Your task to perform on an android device: What's the weather going to be this weekend? Image 0: 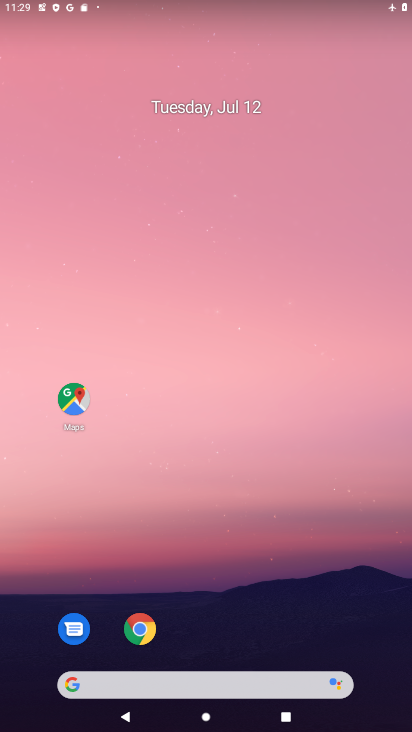
Step 0: drag from (212, 658) to (259, 303)
Your task to perform on an android device: What's the weather going to be this weekend? Image 1: 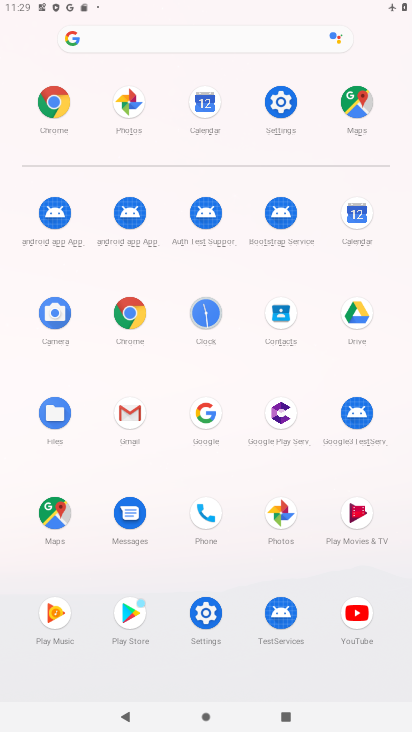
Step 1: click (127, 307)
Your task to perform on an android device: What's the weather going to be this weekend? Image 2: 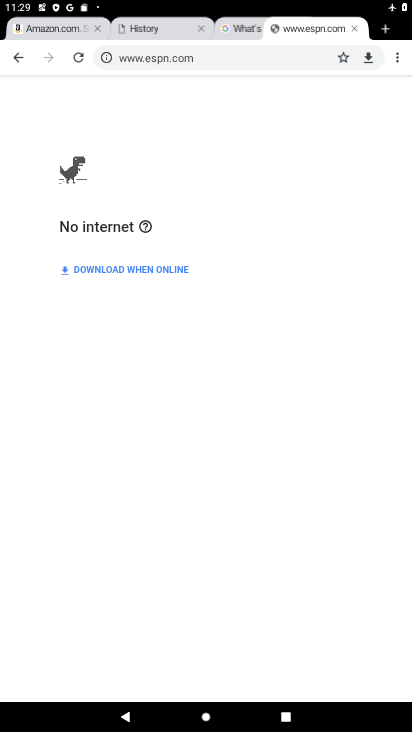
Step 2: click (383, 20)
Your task to perform on an android device: What's the weather going to be this weekend? Image 3: 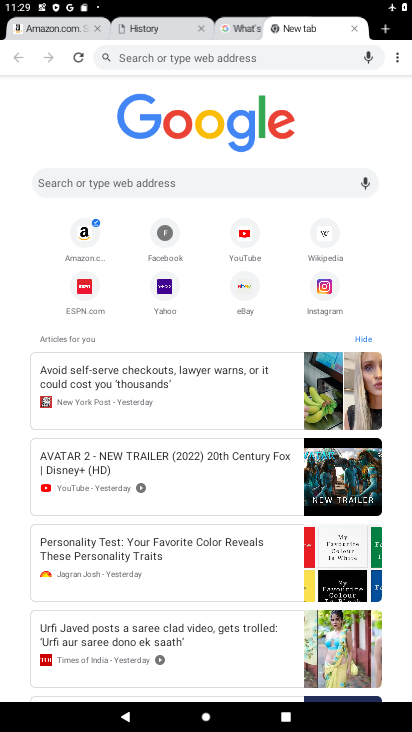
Step 3: click (162, 177)
Your task to perform on an android device: What's the weather going to be this weekend? Image 4: 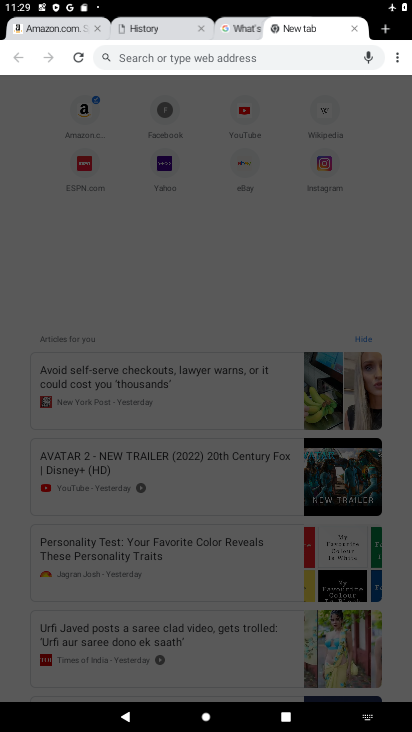
Step 4: type "What's the weather going to be this weekend "
Your task to perform on an android device: What's the weather going to be this weekend? Image 5: 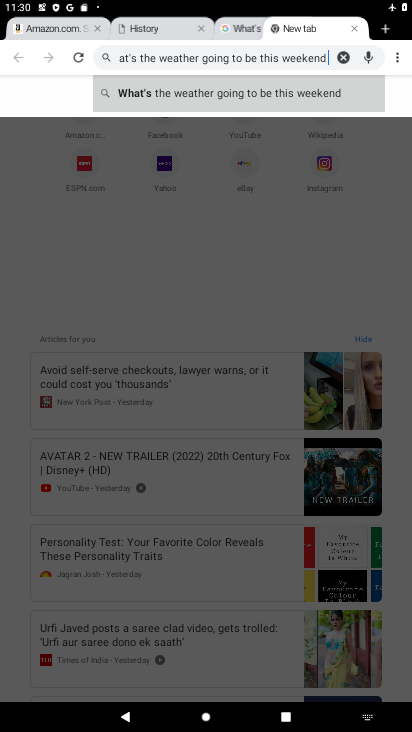
Step 5: click (201, 96)
Your task to perform on an android device: What's the weather going to be this weekend? Image 6: 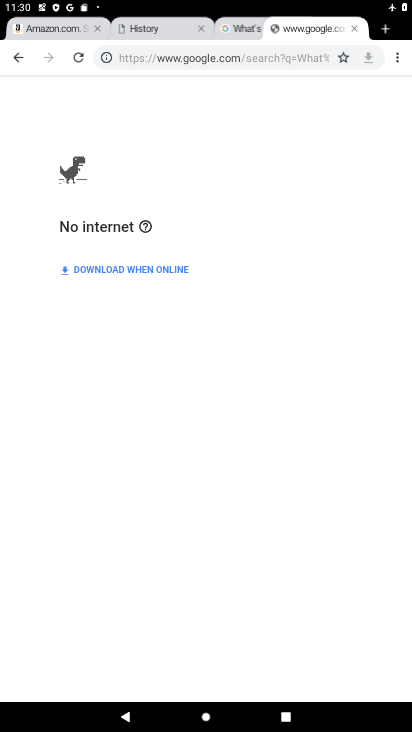
Step 6: task complete